Your task to perform on an android device: Go to network settings Image 0: 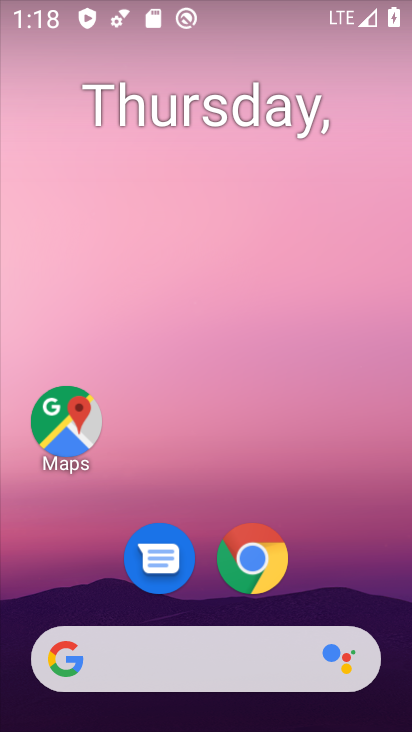
Step 0: drag from (304, 456) to (282, 115)
Your task to perform on an android device: Go to network settings Image 1: 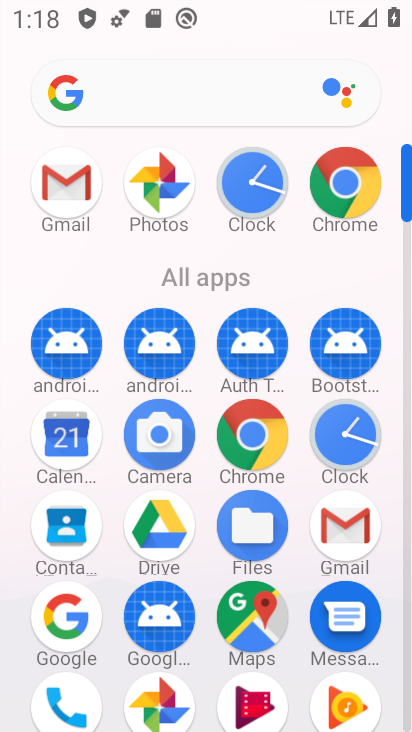
Step 1: click (408, 723)
Your task to perform on an android device: Go to network settings Image 2: 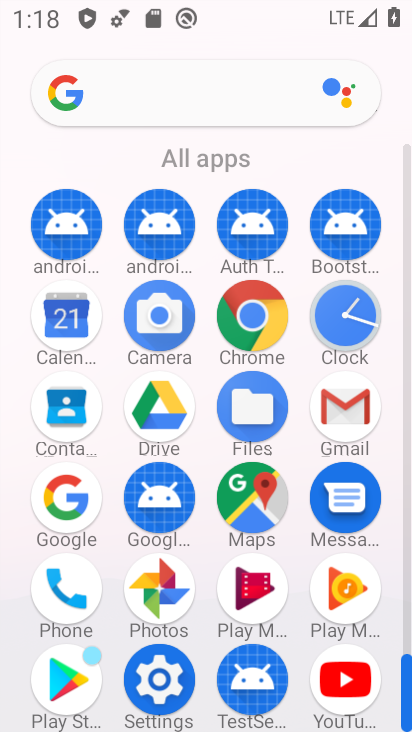
Step 2: click (181, 689)
Your task to perform on an android device: Go to network settings Image 3: 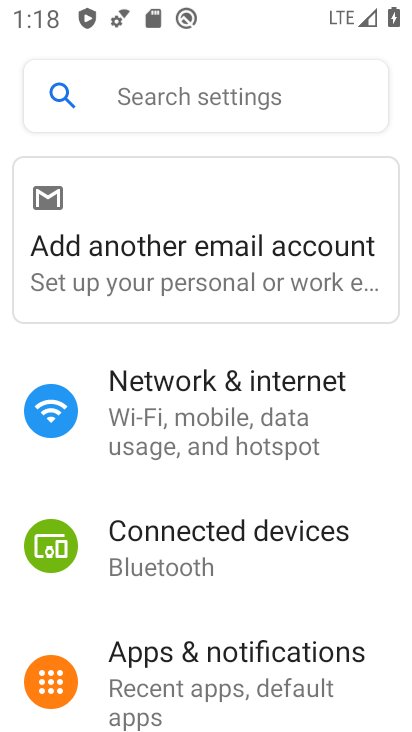
Step 3: click (250, 453)
Your task to perform on an android device: Go to network settings Image 4: 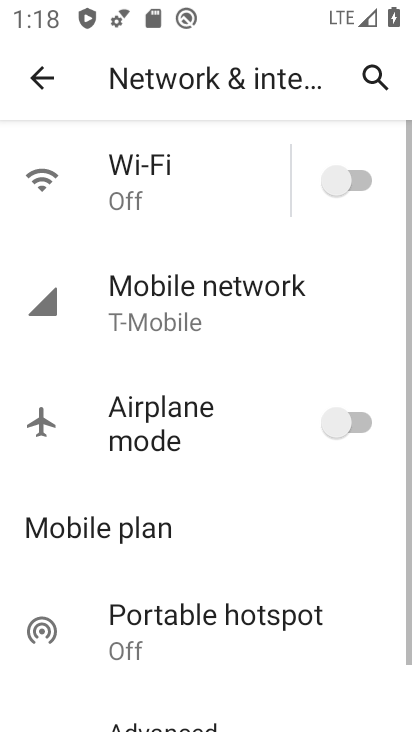
Step 4: task complete